Your task to perform on an android device: Open Google Maps and go to "Timeline" Image 0: 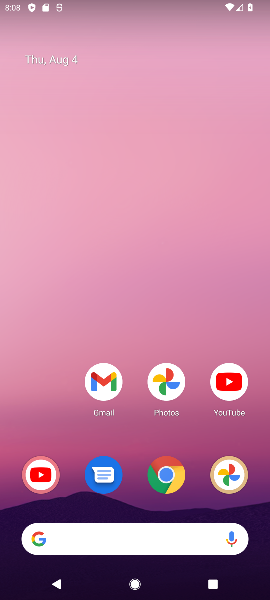
Step 0: drag from (141, 490) to (164, 228)
Your task to perform on an android device: Open Google Maps and go to "Timeline" Image 1: 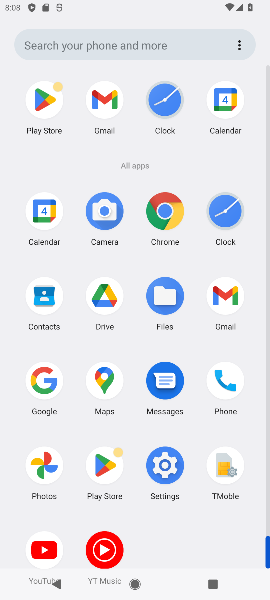
Step 1: click (96, 381)
Your task to perform on an android device: Open Google Maps and go to "Timeline" Image 2: 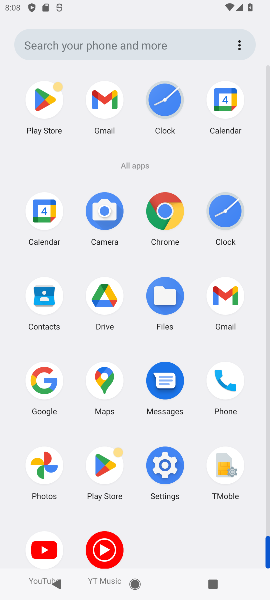
Step 2: click (96, 381)
Your task to perform on an android device: Open Google Maps and go to "Timeline" Image 3: 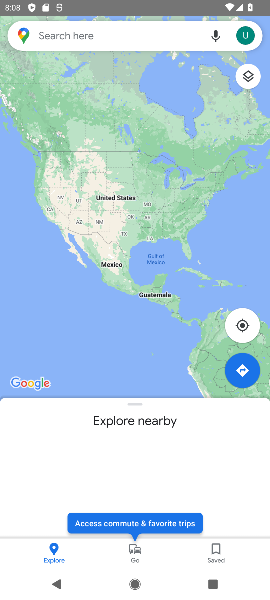
Step 3: click (243, 35)
Your task to perform on an android device: Open Google Maps and go to "Timeline" Image 4: 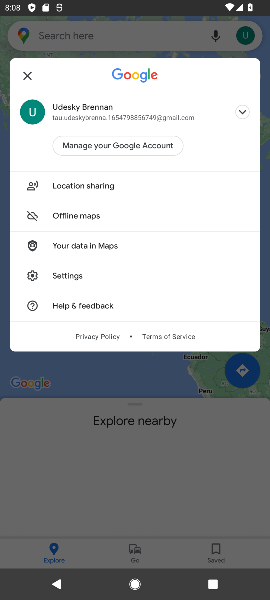
Step 4: click (190, 507)
Your task to perform on an android device: Open Google Maps and go to "Timeline" Image 5: 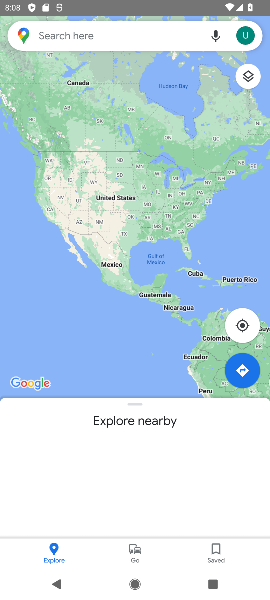
Step 5: click (15, 27)
Your task to perform on an android device: Open Google Maps and go to "Timeline" Image 6: 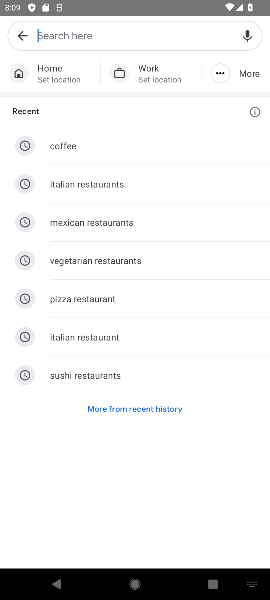
Step 6: click (22, 33)
Your task to perform on an android device: Open Google Maps and go to "Timeline" Image 7: 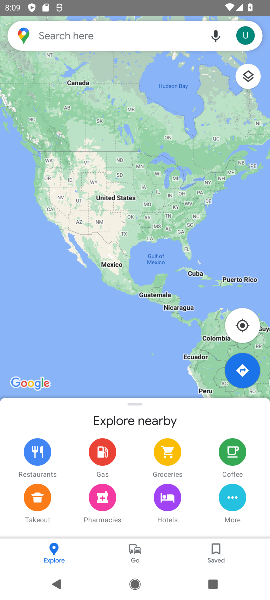
Step 7: drag from (127, 479) to (169, 178)
Your task to perform on an android device: Open Google Maps and go to "Timeline" Image 8: 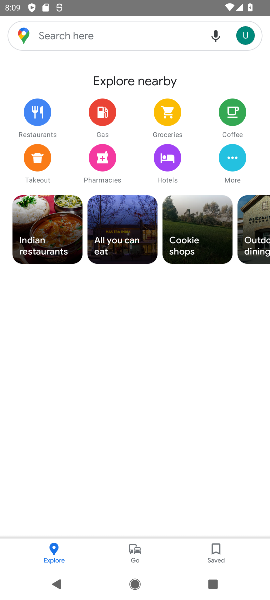
Step 8: drag from (111, 415) to (172, 174)
Your task to perform on an android device: Open Google Maps and go to "Timeline" Image 9: 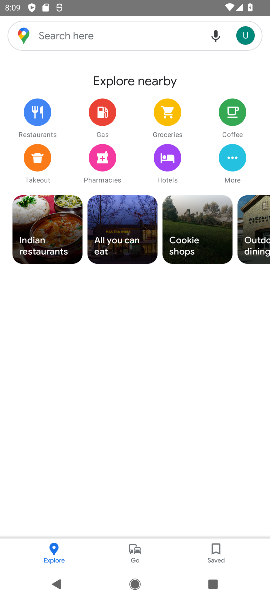
Step 9: click (127, 554)
Your task to perform on an android device: Open Google Maps and go to "Timeline" Image 10: 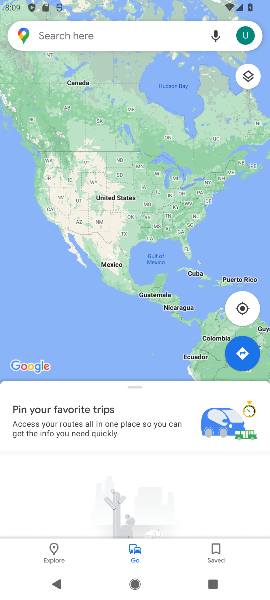
Step 10: click (236, 549)
Your task to perform on an android device: Open Google Maps and go to "Timeline" Image 11: 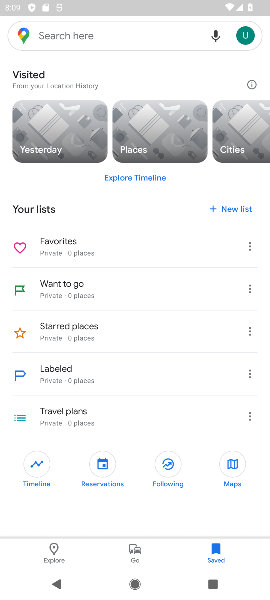
Step 11: click (34, 458)
Your task to perform on an android device: Open Google Maps and go to "Timeline" Image 12: 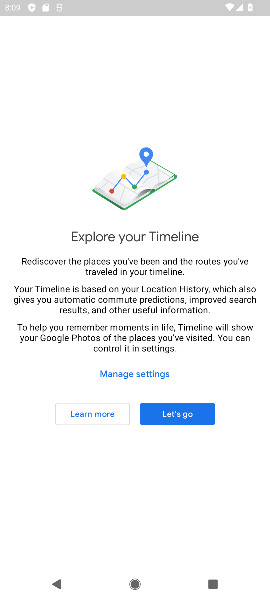
Step 12: click (176, 420)
Your task to perform on an android device: Open Google Maps and go to "Timeline" Image 13: 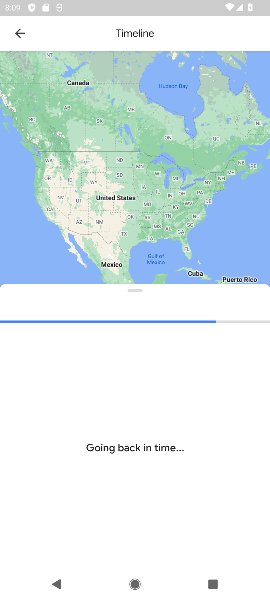
Step 13: task complete